Your task to perform on an android device: What's the weather going to be tomorrow? Image 0: 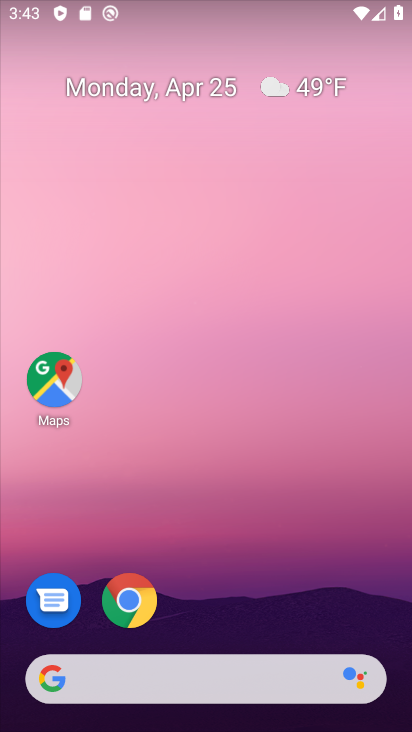
Step 0: click (284, 78)
Your task to perform on an android device: What's the weather going to be tomorrow? Image 1: 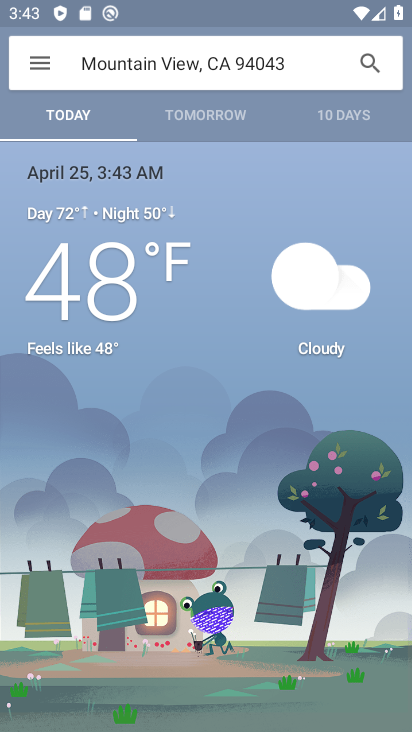
Step 1: click (211, 113)
Your task to perform on an android device: What's the weather going to be tomorrow? Image 2: 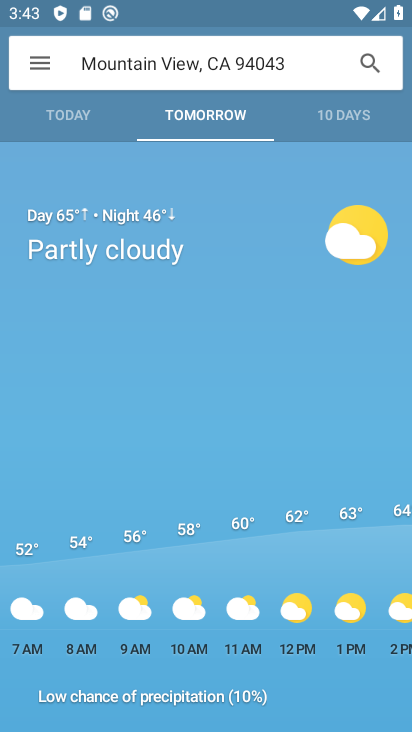
Step 2: task complete